Your task to perform on an android device: Open calendar and show me the fourth week of next month Image 0: 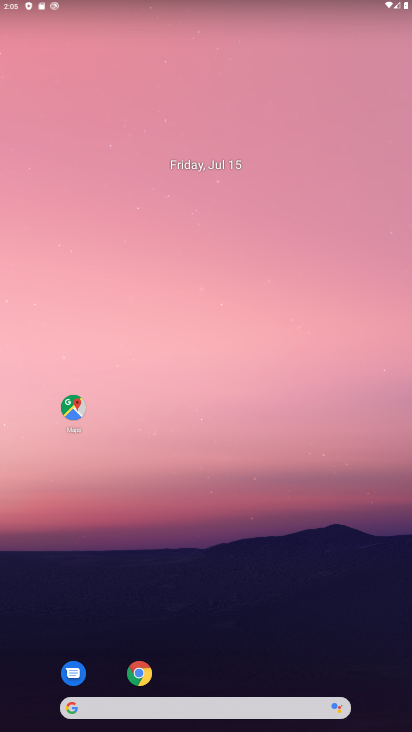
Step 0: drag from (188, 648) to (212, 218)
Your task to perform on an android device: Open calendar and show me the fourth week of next month Image 1: 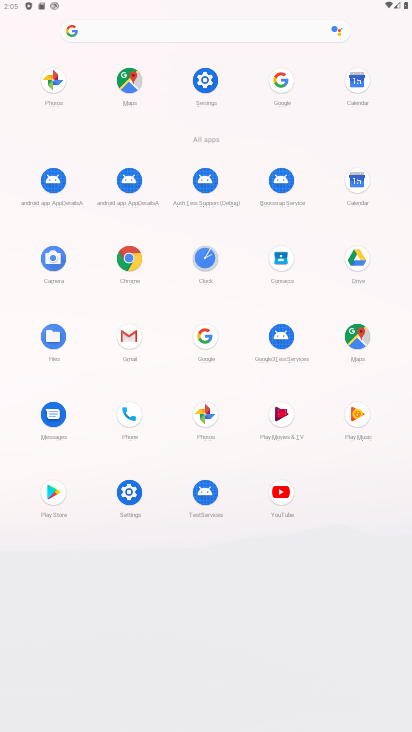
Step 1: click (359, 184)
Your task to perform on an android device: Open calendar and show me the fourth week of next month Image 2: 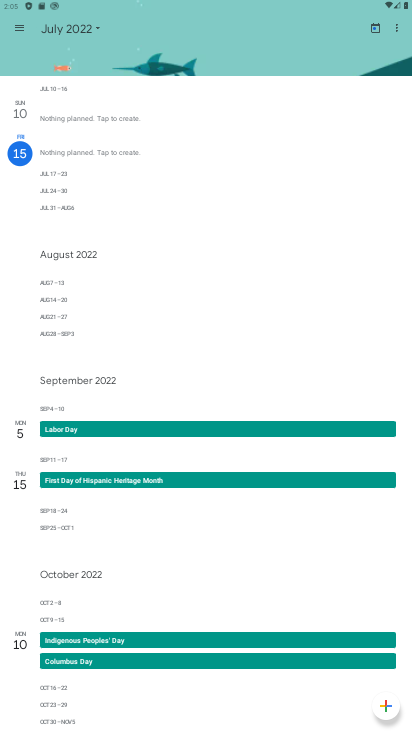
Step 2: click (61, 38)
Your task to perform on an android device: Open calendar and show me the fourth week of next month Image 3: 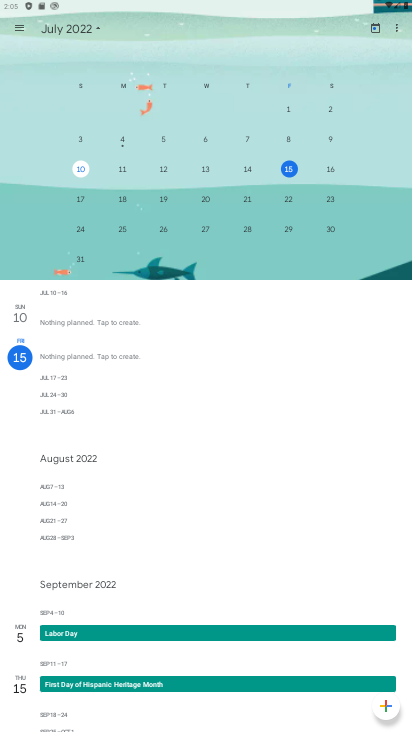
Step 3: drag from (350, 209) to (1, 267)
Your task to perform on an android device: Open calendar and show me the fourth week of next month Image 4: 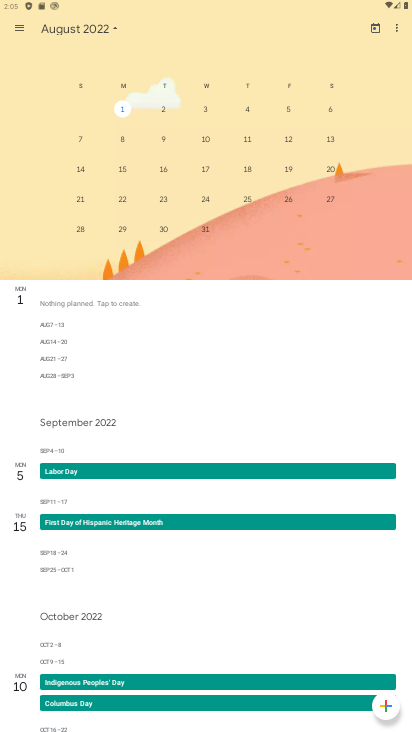
Step 4: click (76, 198)
Your task to perform on an android device: Open calendar and show me the fourth week of next month Image 5: 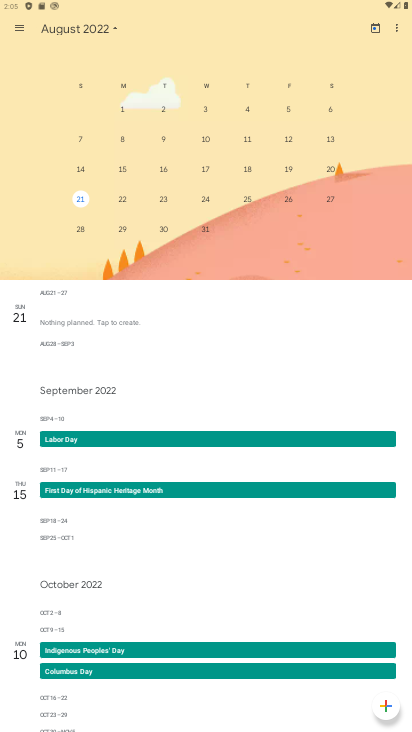
Step 5: task complete